Your task to perform on an android device: turn notification dots on Image 0: 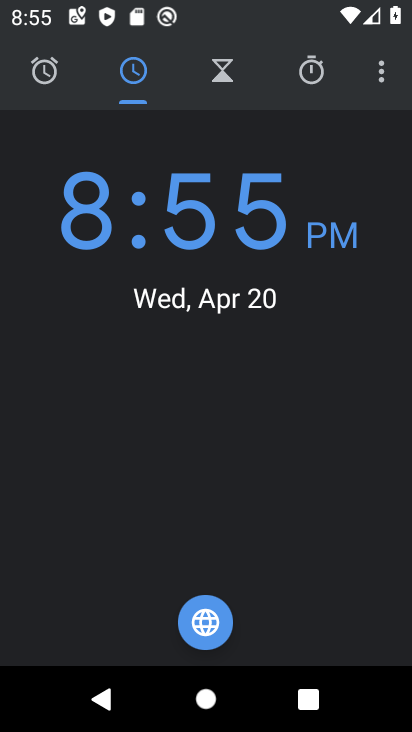
Step 0: press home button
Your task to perform on an android device: turn notification dots on Image 1: 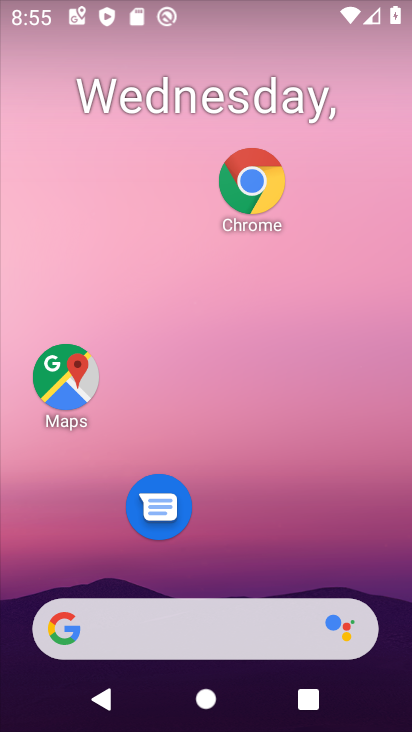
Step 1: drag from (316, 571) to (316, 291)
Your task to perform on an android device: turn notification dots on Image 2: 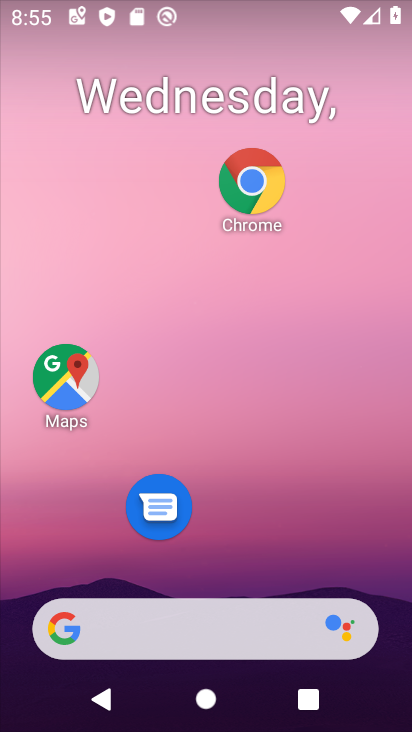
Step 2: drag from (345, 581) to (355, 289)
Your task to perform on an android device: turn notification dots on Image 3: 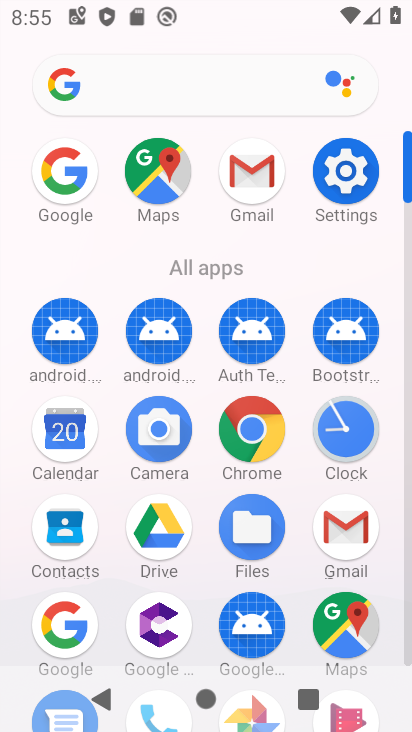
Step 3: click (355, 194)
Your task to perform on an android device: turn notification dots on Image 4: 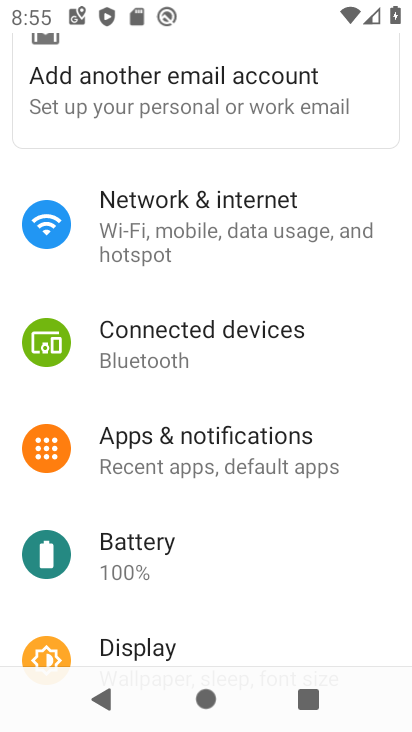
Step 4: click (297, 457)
Your task to perform on an android device: turn notification dots on Image 5: 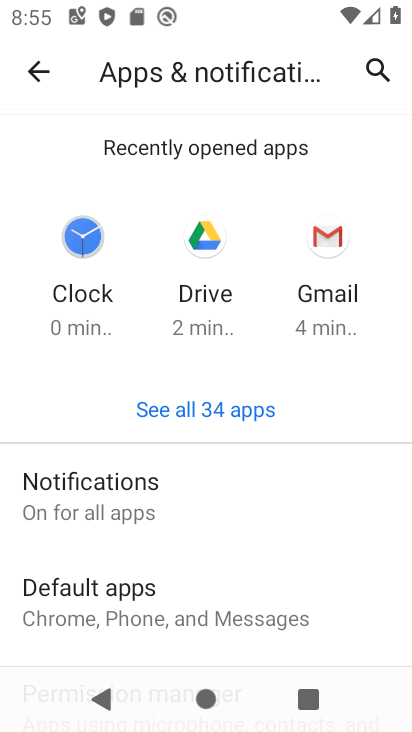
Step 5: drag from (281, 580) to (298, 429)
Your task to perform on an android device: turn notification dots on Image 6: 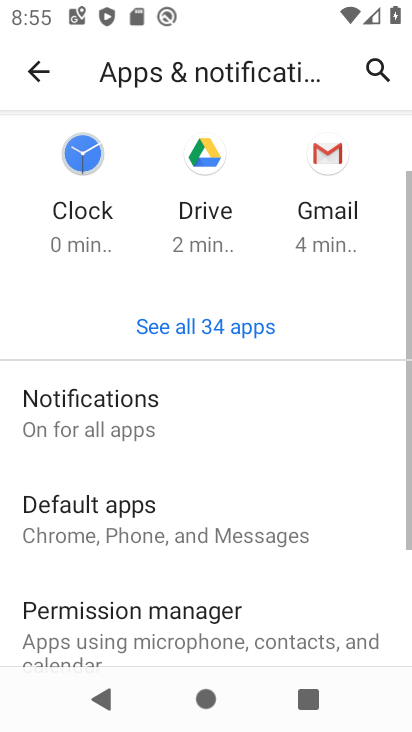
Step 6: drag from (309, 368) to (316, 317)
Your task to perform on an android device: turn notification dots on Image 7: 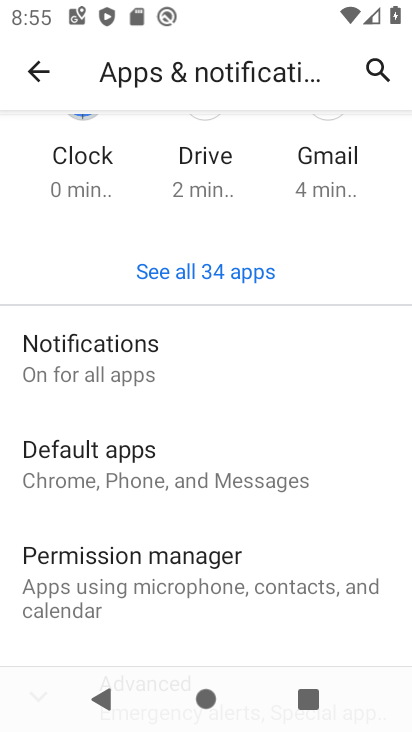
Step 7: drag from (294, 507) to (298, 466)
Your task to perform on an android device: turn notification dots on Image 8: 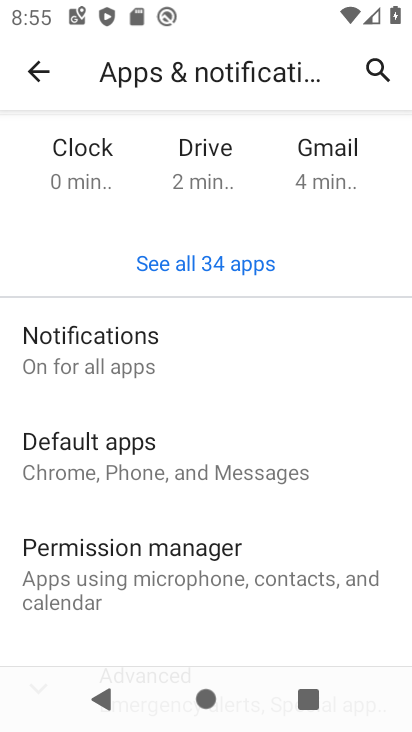
Step 8: click (284, 361)
Your task to perform on an android device: turn notification dots on Image 9: 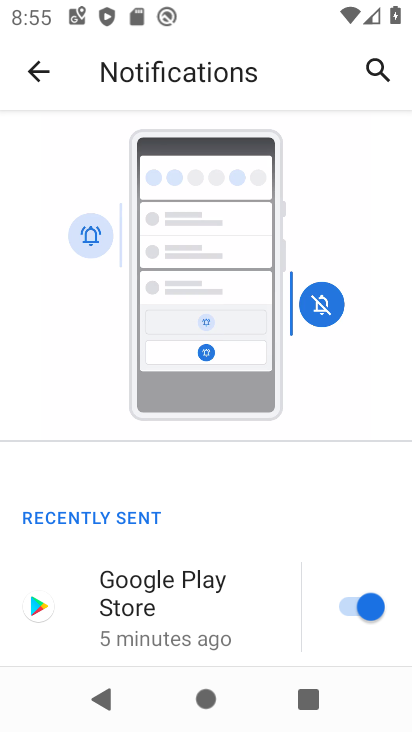
Step 9: drag from (234, 554) to (266, 394)
Your task to perform on an android device: turn notification dots on Image 10: 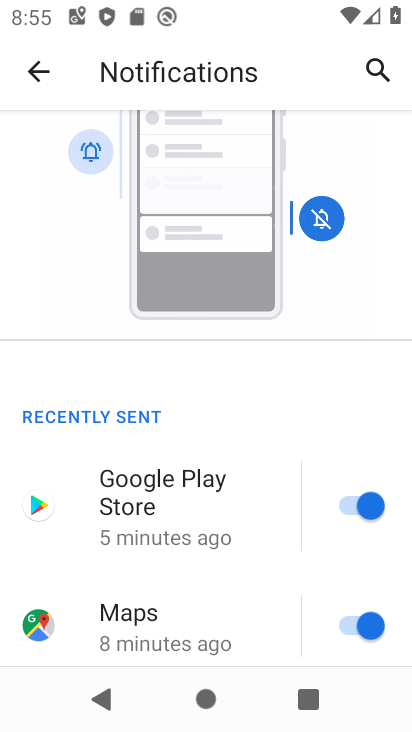
Step 10: drag from (248, 514) to (259, 357)
Your task to perform on an android device: turn notification dots on Image 11: 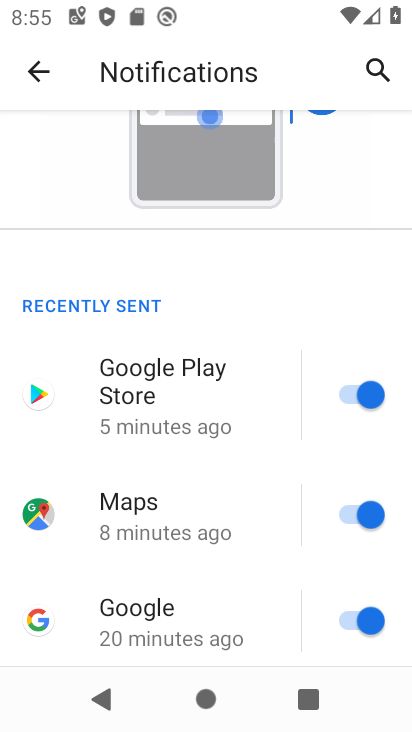
Step 11: drag from (239, 486) to (252, 350)
Your task to perform on an android device: turn notification dots on Image 12: 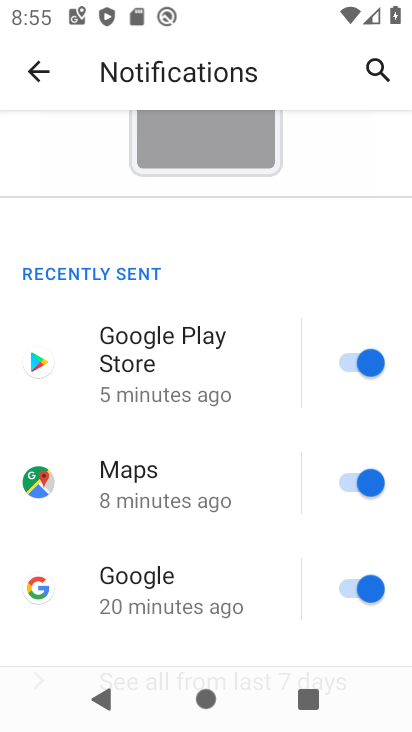
Step 12: drag from (250, 549) to (281, 364)
Your task to perform on an android device: turn notification dots on Image 13: 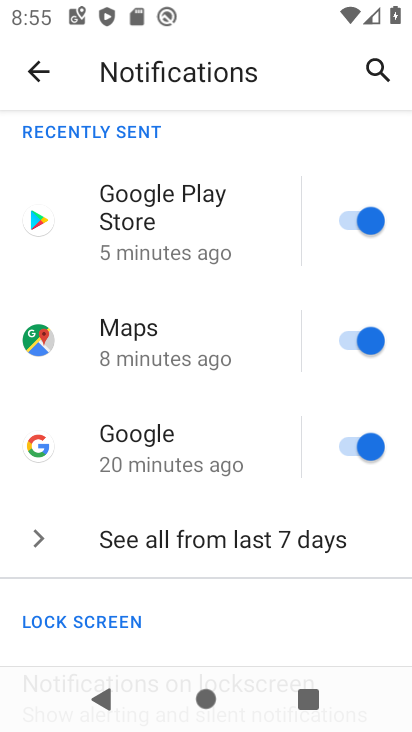
Step 13: drag from (240, 525) to (279, 322)
Your task to perform on an android device: turn notification dots on Image 14: 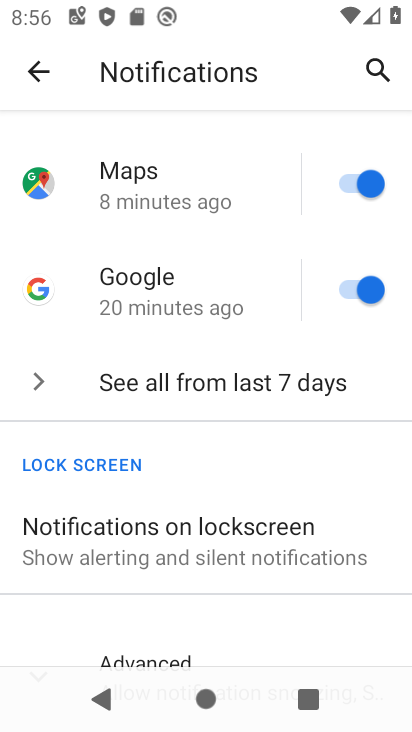
Step 14: drag from (227, 494) to (250, 366)
Your task to perform on an android device: turn notification dots on Image 15: 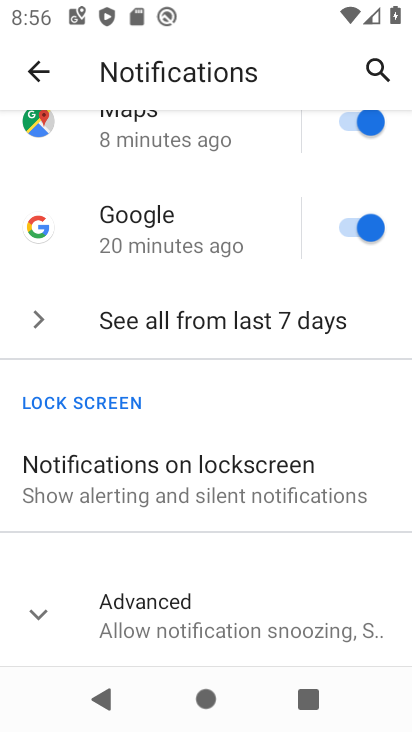
Step 15: click (244, 611)
Your task to perform on an android device: turn notification dots on Image 16: 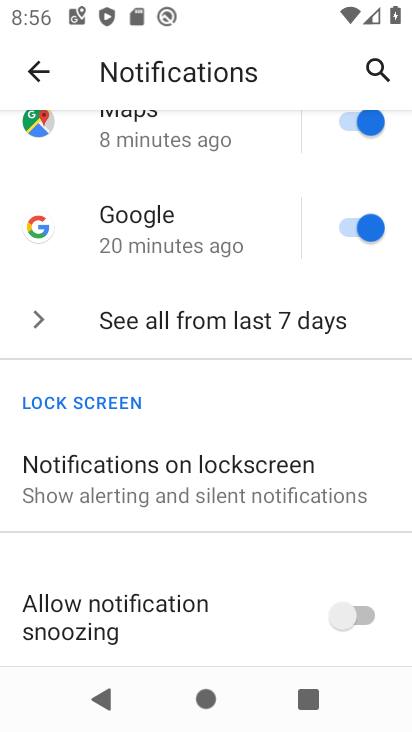
Step 16: drag from (267, 559) to (283, 361)
Your task to perform on an android device: turn notification dots on Image 17: 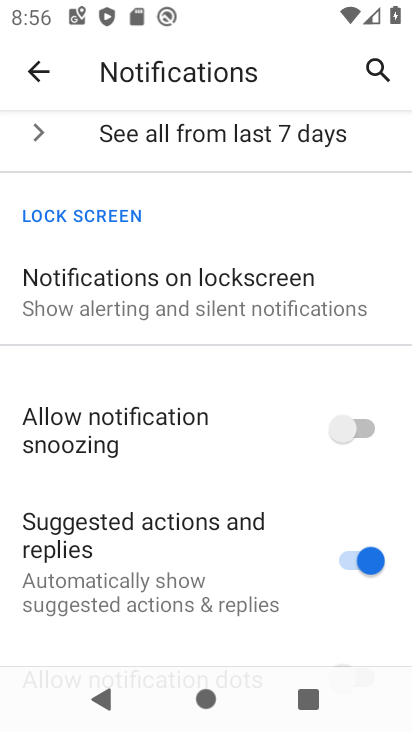
Step 17: drag from (340, 532) to (368, 293)
Your task to perform on an android device: turn notification dots on Image 18: 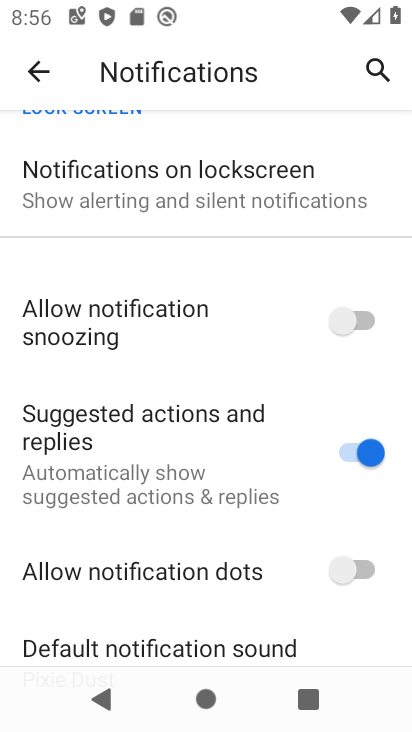
Step 18: click (377, 582)
Your task to perform on an android device: turn notification dots on Image 19: 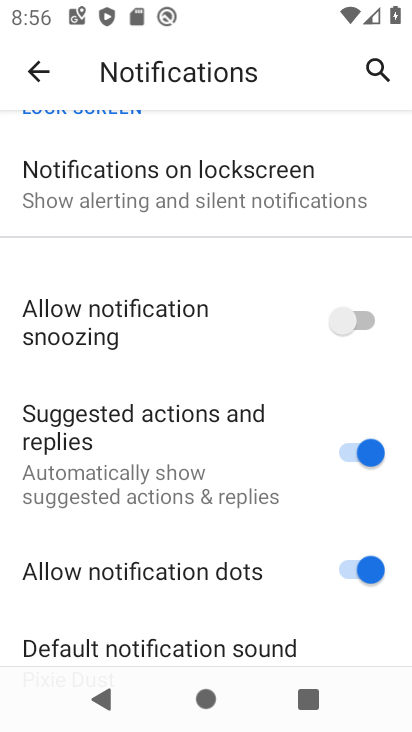
Step 19: task complete